Your task to perform on an android device: turn off notifications settings in the gmail app Image 0: 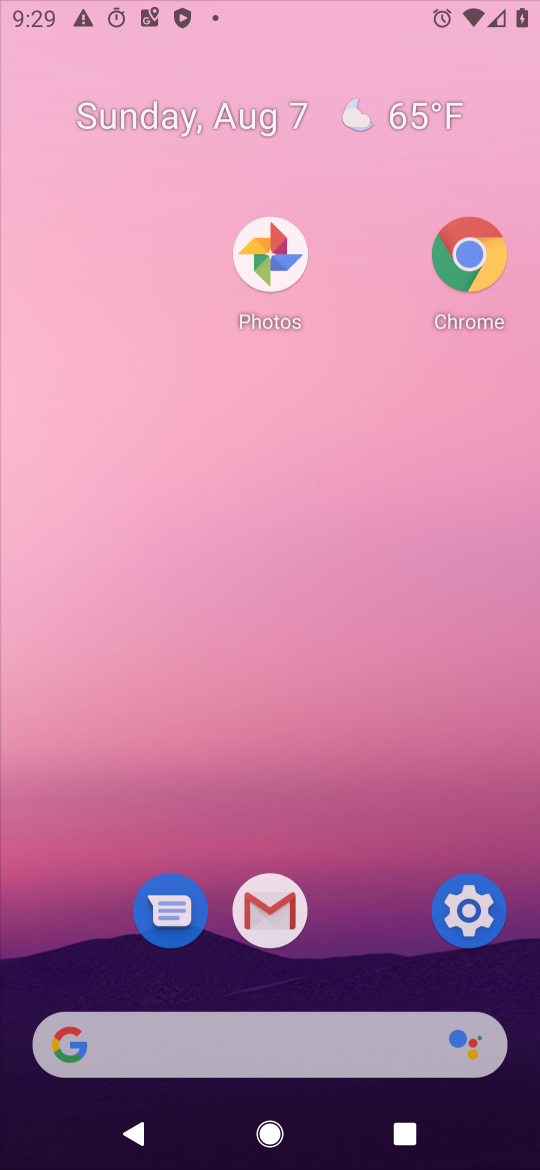
Step 0: press home button
Your task to perform on an android device: turn off notifications settings in the gmail app Image 1: 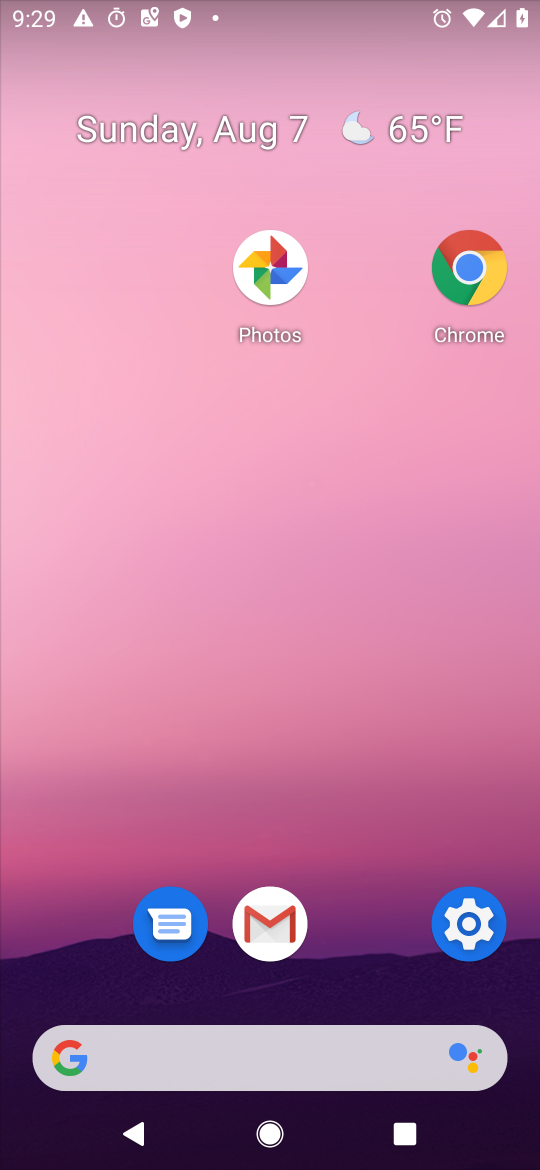
Step 1: drag from (332, 991) to (302, 211)
Your task to perform on an android device: turn off notifications settings in the gmail app Image 2: 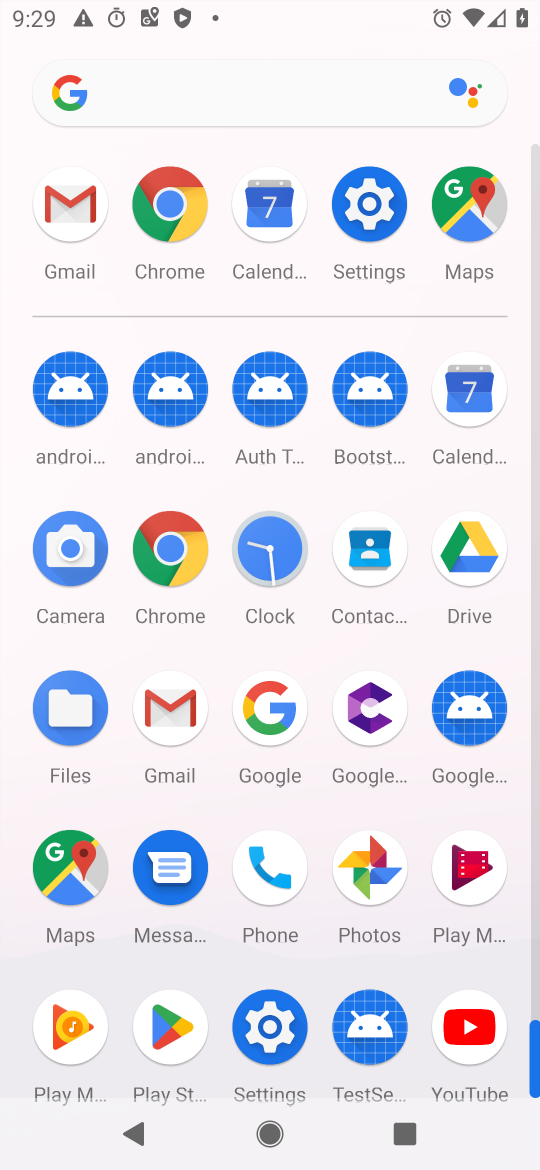
Step 2: click (30, 211)
Your task to perform on an android device: turn off notifications settings in the gmail app Image 3: 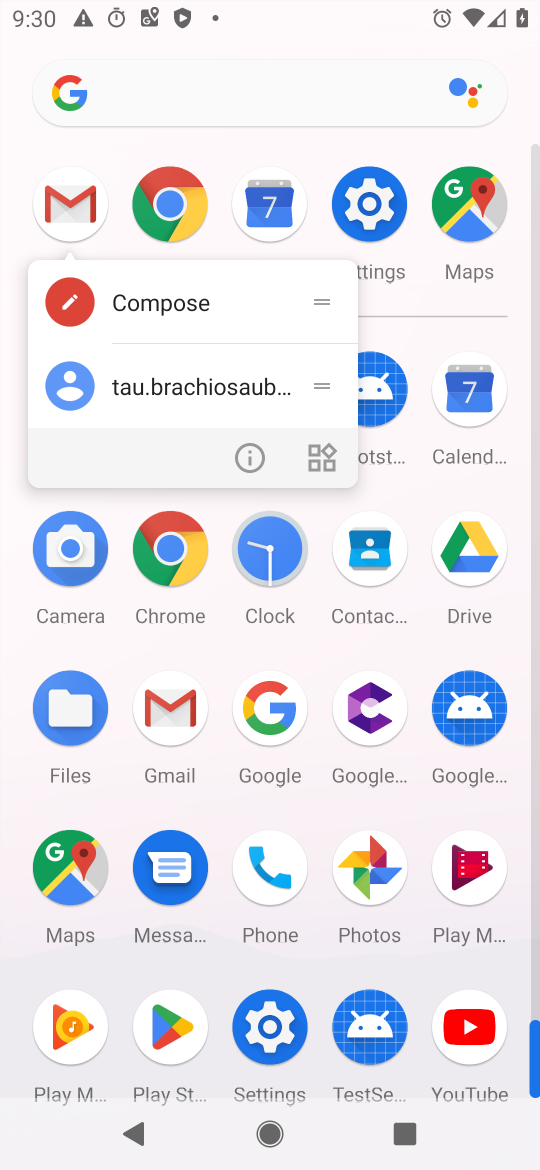
Step 3: click (53, 203)
Your task to perform on an android device: turn off notifications settings in the gmail app Image 4: 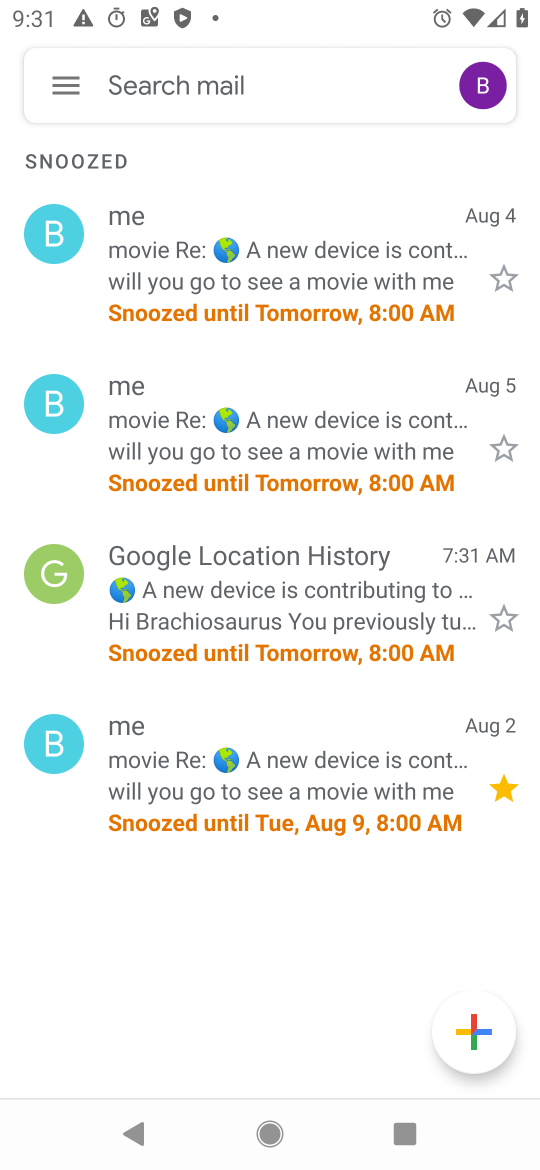
Step 4: click (66, 75)
Your task to perform on an android device: turn off notifications settings in the gmail app Image 5: 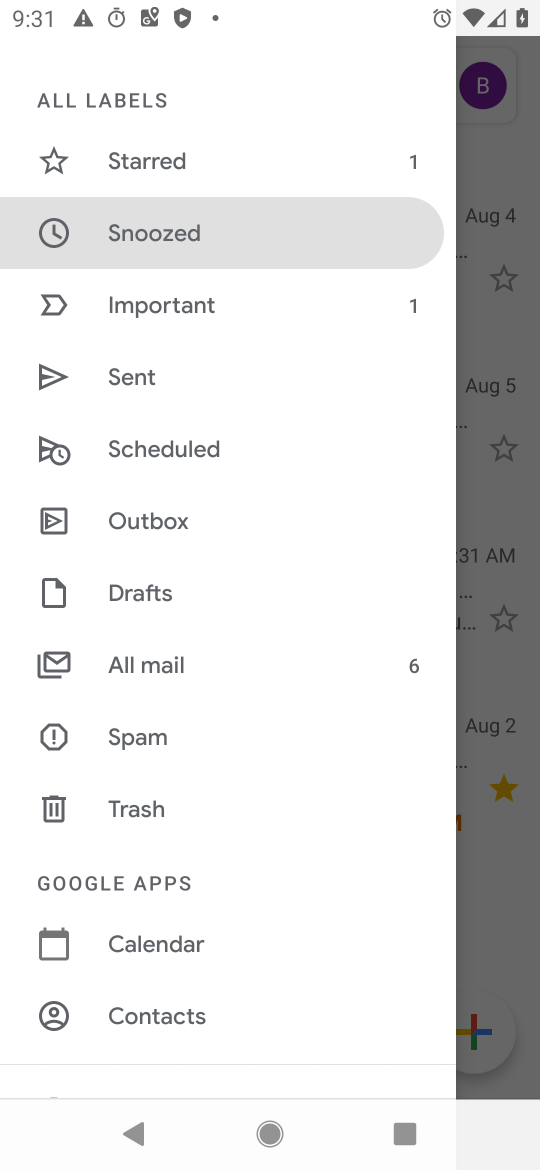
Step 5: drag from (130, 967) to (189, 534)
Your task to perform on an android device: turn off notifications settings in the gmail app Image 6: 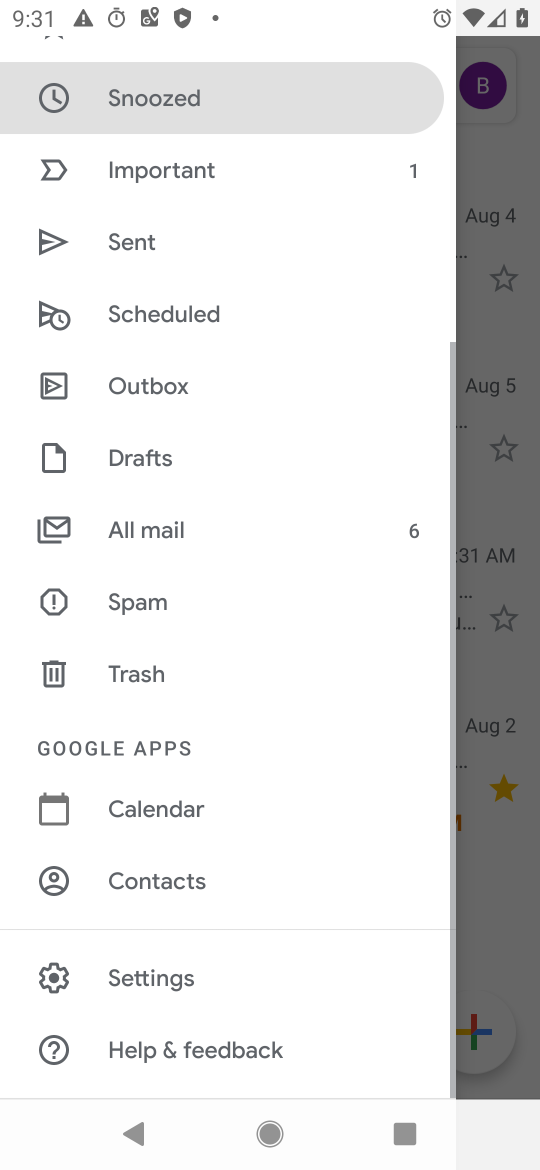
Step 6: click (173, 972)
Your task to perform on an android device: turn off notifications settings in the gmail app Image 7: 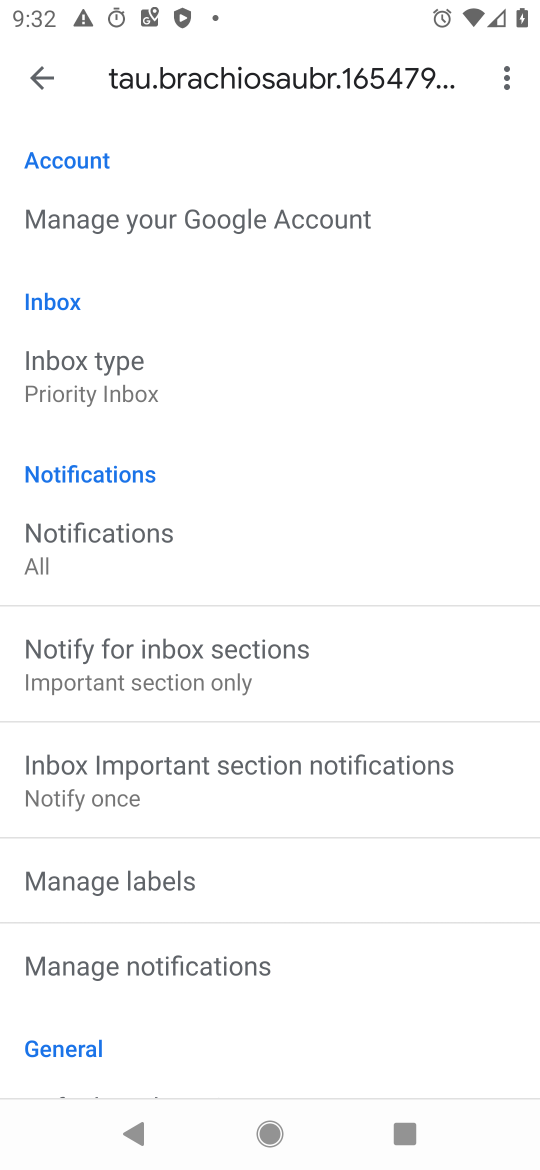
Step 7: click (213, 554)
Your task to perform on an android device: turn off notifications settings in the gmail app Image 8: 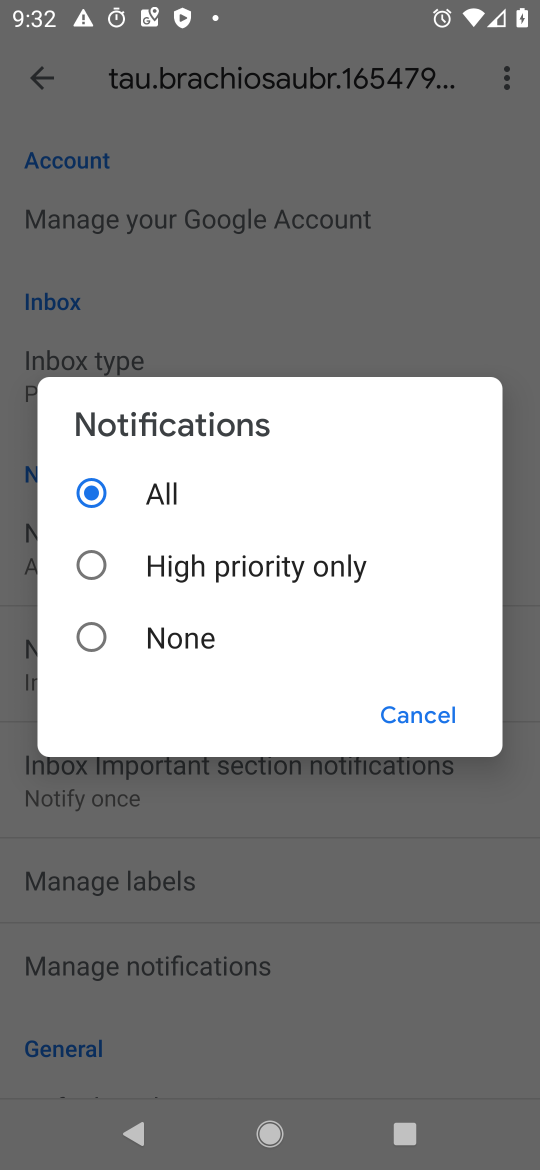
Step 8: click (196, 644)
Your task to perform on an android device: turn off notifications settings in the gmail app Image 9: 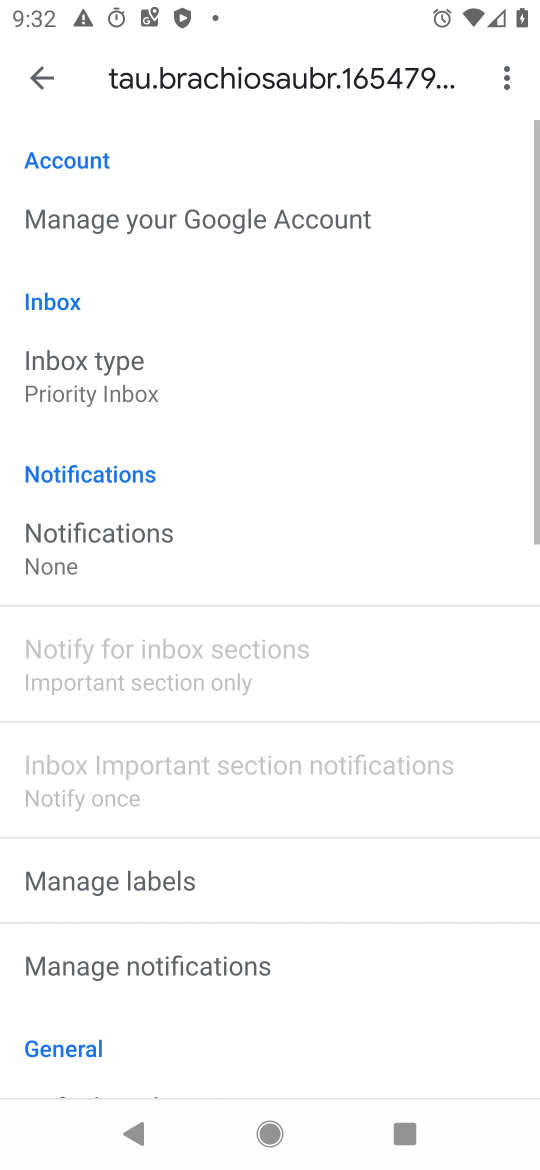
Step 9: task complete